Your task to perform on an android device: turn on airplane mode Image 0: 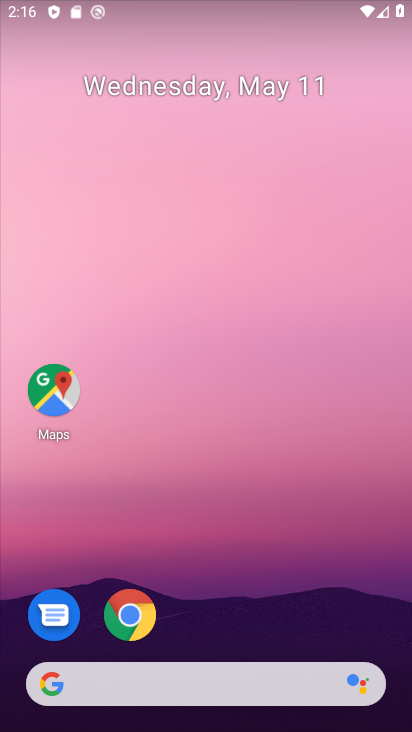
Step 0: drag from (321, 555) to (319, 141)
Your task to perform on an android device: turn on airplane mode Image 1: 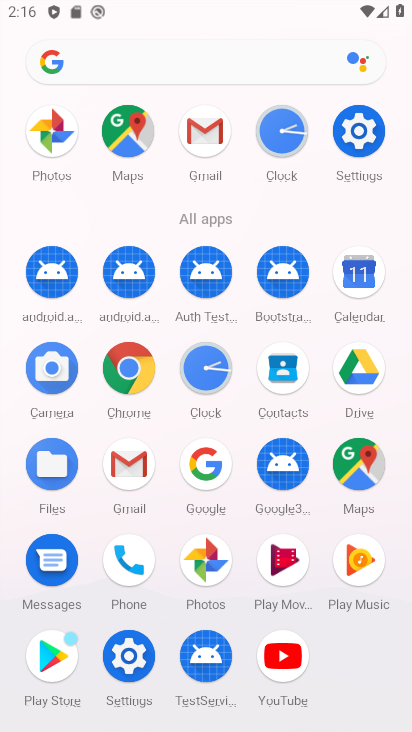
Step 1: click (355, 129)
Your task to perform on an android device: turn on airplane mode Image 2: 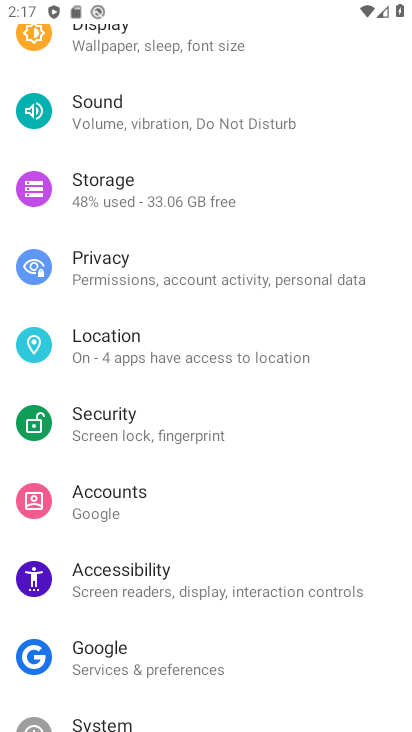
Step 2: drag from (268, 183) to (313, 446)
Your task to perform on an android device: turn on airplane mode Image 3: 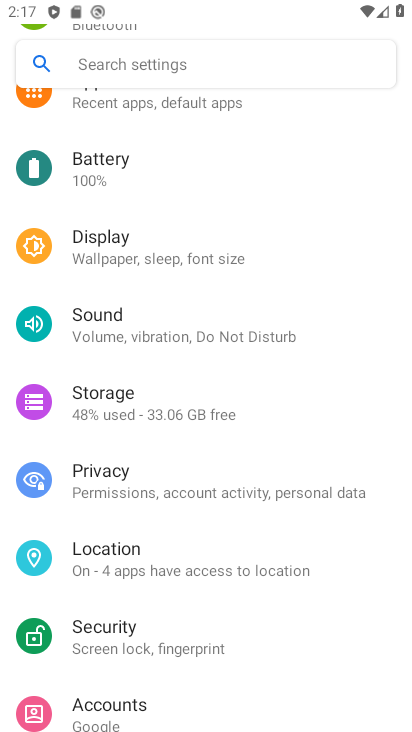
Step 3: drag from (283, 298) to (312, 565)
Your task to perform on an android device: turn on airplane mode Image 4: 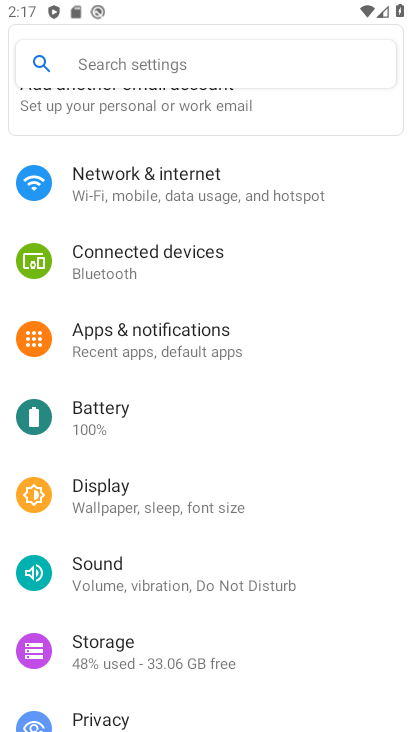
Step 4: drag from (249, 196) to (267, 517)
Your task to perform on an android device: turn on airplane mode Image 5: 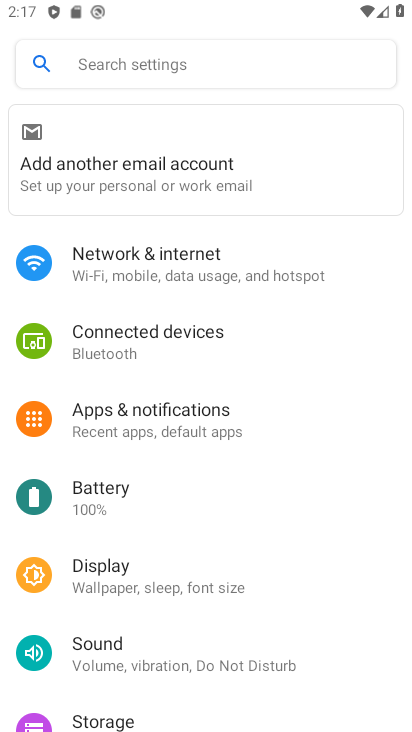
Step 5: click (223, 273)
Your task to perform on an android device: turn on airplane mode Image 6: 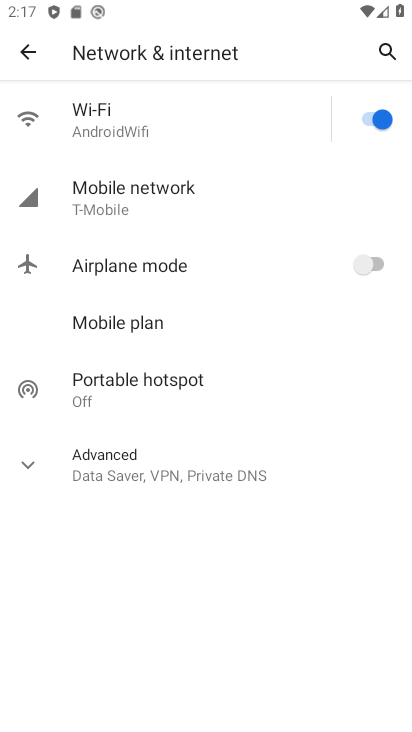
Step 6: click (371, 266)
Your task to perform on an android device: turn on airplane mode Image 7: 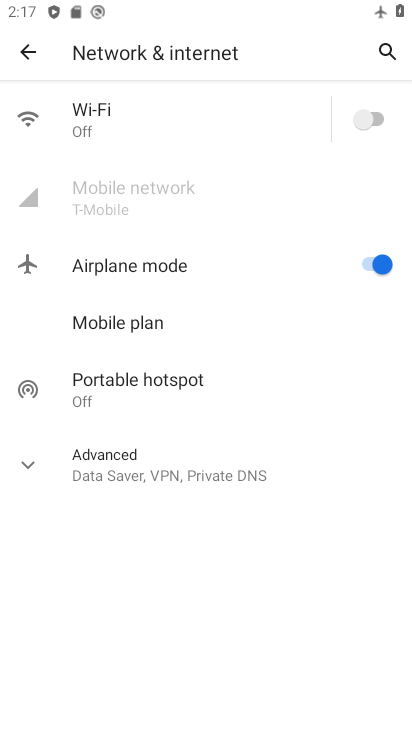
Step 7: task complete